Your task to perform on an android device: set the stopwatch Image 0: 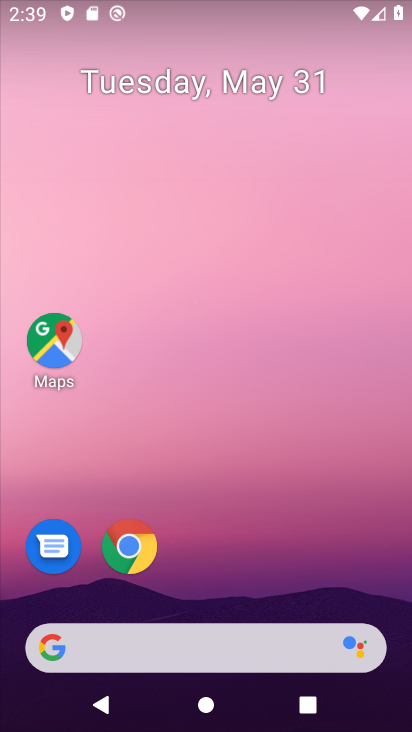
Step 0: drag from (205, 550) to (230, 99)
Your task to perform on an android device: set the stopwatch Image 1: 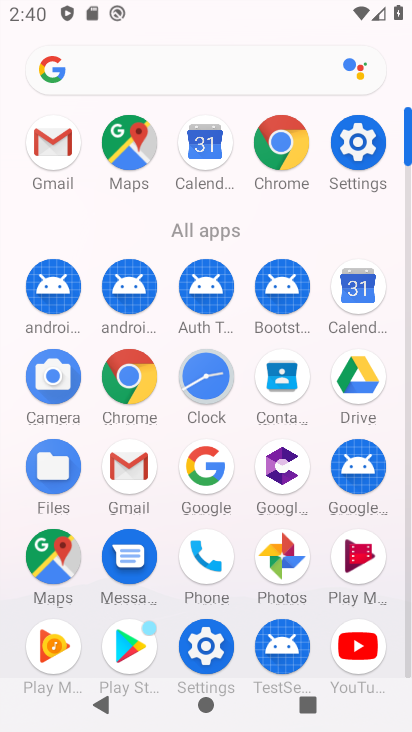
Step 1: click (211, 370)
Your task to perform on an android device: set the stopwatch Image 2: 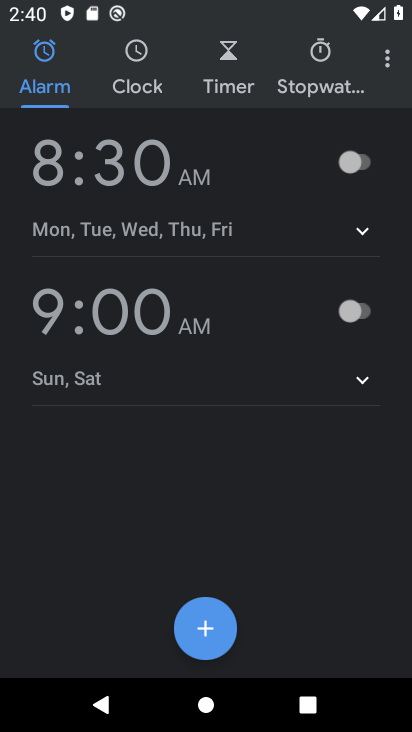
Step 2: click (312, 76)
Your task to perform on an android device: set the stopwatch Image 3: 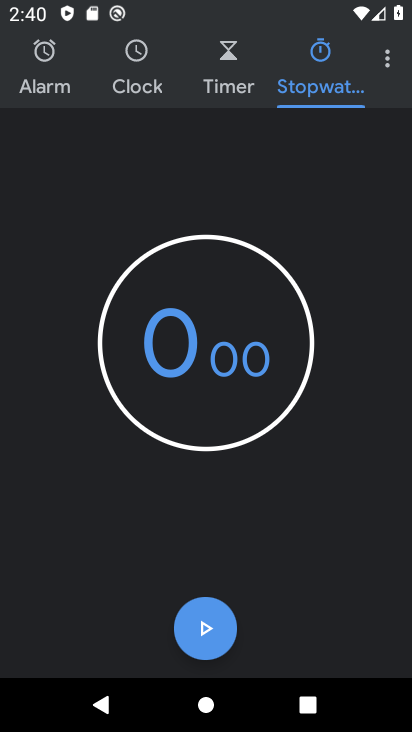
Step 3: task complete